Your task to perform on an android device: Open Wikipedia Image 0: 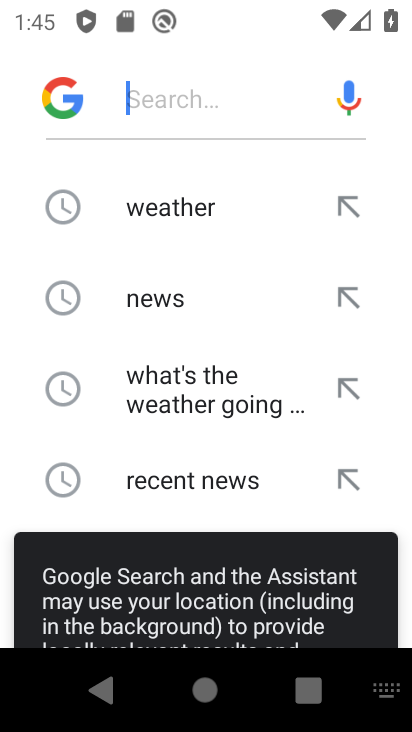
Step 0: press home button
Your task to perform on an android device: Open Wikipedia Image 1: 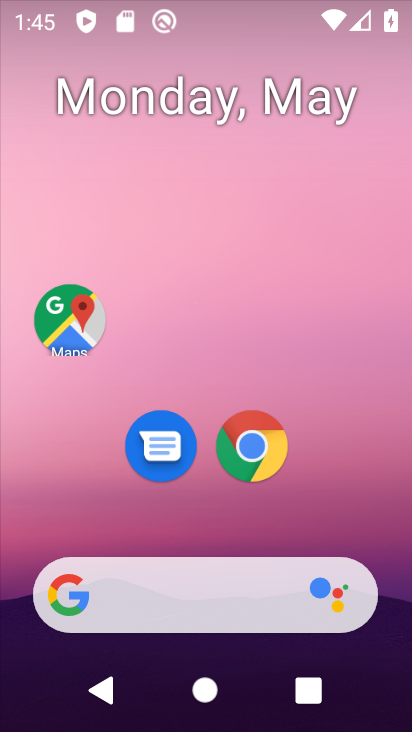
Step 1: drag from (356, 496) to (316, 111)
Your task to perform on an android device: Open Wikipedia Image 2: 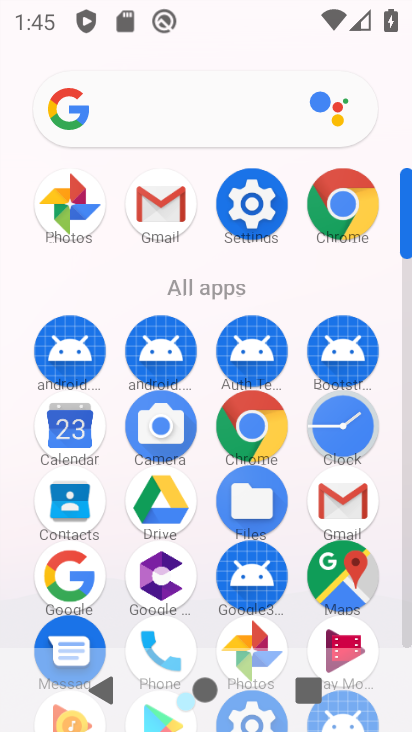
Step 2: click (248, 435)
Your task to perform on an android device: Open Wikipedia Image 3: 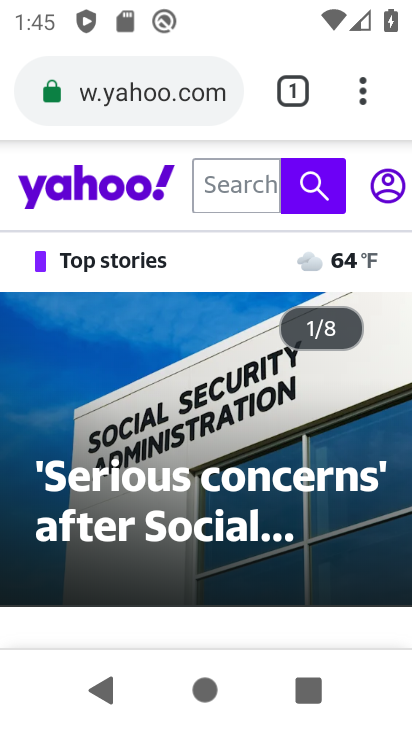
Step 3: click (146, 116)
Your task to perform on an android device: Open Wikipedia Image 4: 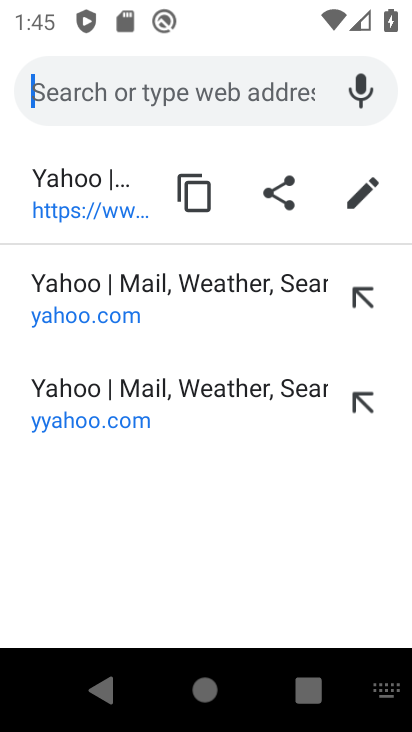
Step 4: type "wikipedia"
Your task to perform on an android device: Open Wikipedia Image 5: 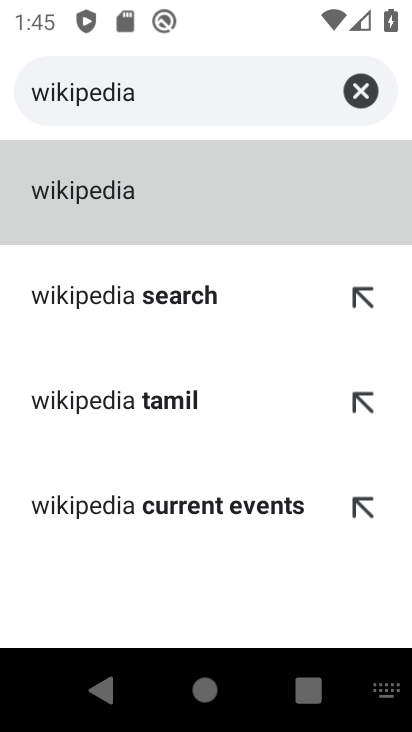
Step 5: click (187, 294)
Your task to perform on an android device: Open Wikipedia Image 6: 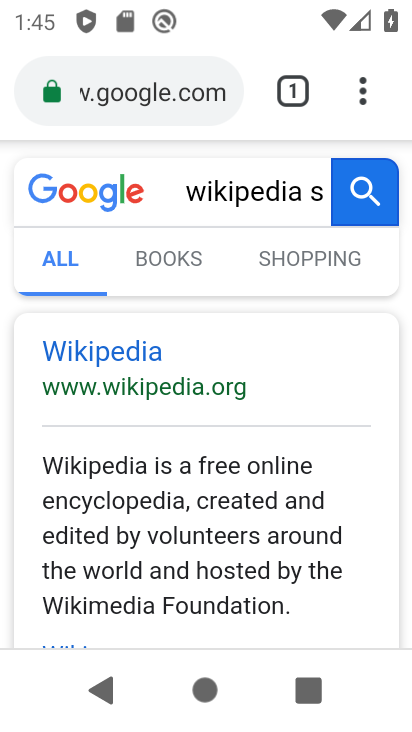
Step 6: click (133, 346)
Your task to perform on an android device: Open Wikipedia Image 7: 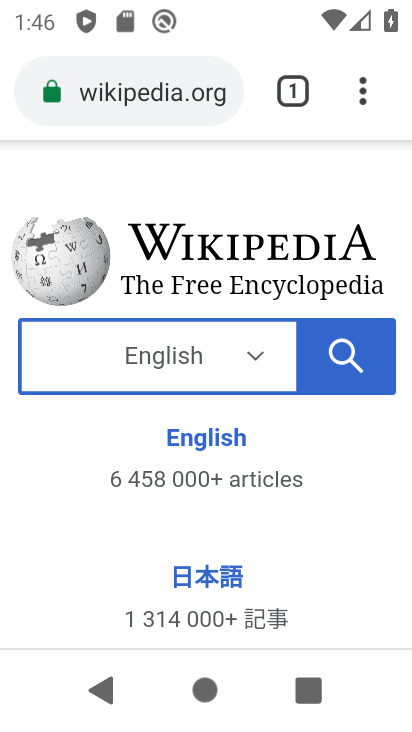
Step 7: task complete